Your task to perform on an android device: Search for vegetarian restaurants on Maps Image 0: 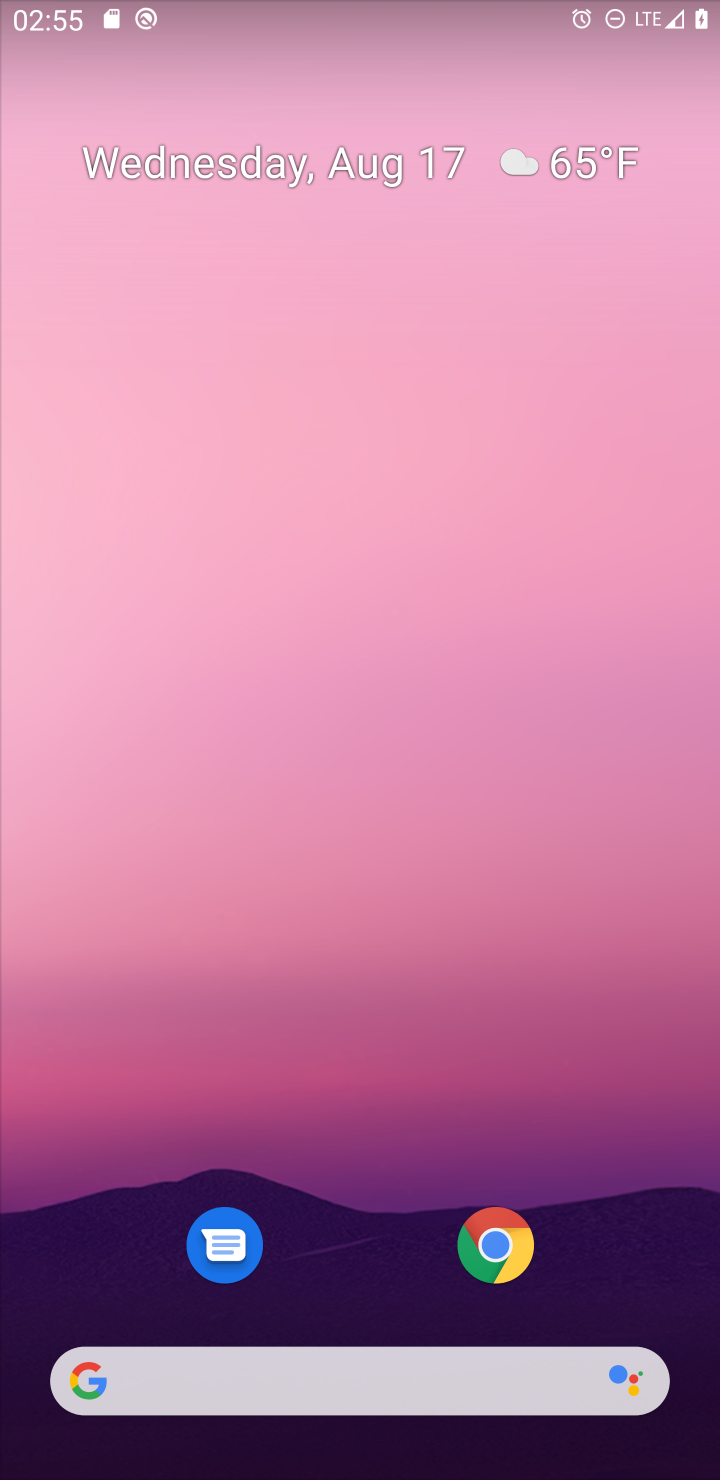
Step 0: drag from (362, 1182) to (258, 259)
Your task to perform on an android device: Search for vegetarian restaurants on Maps Image 1: 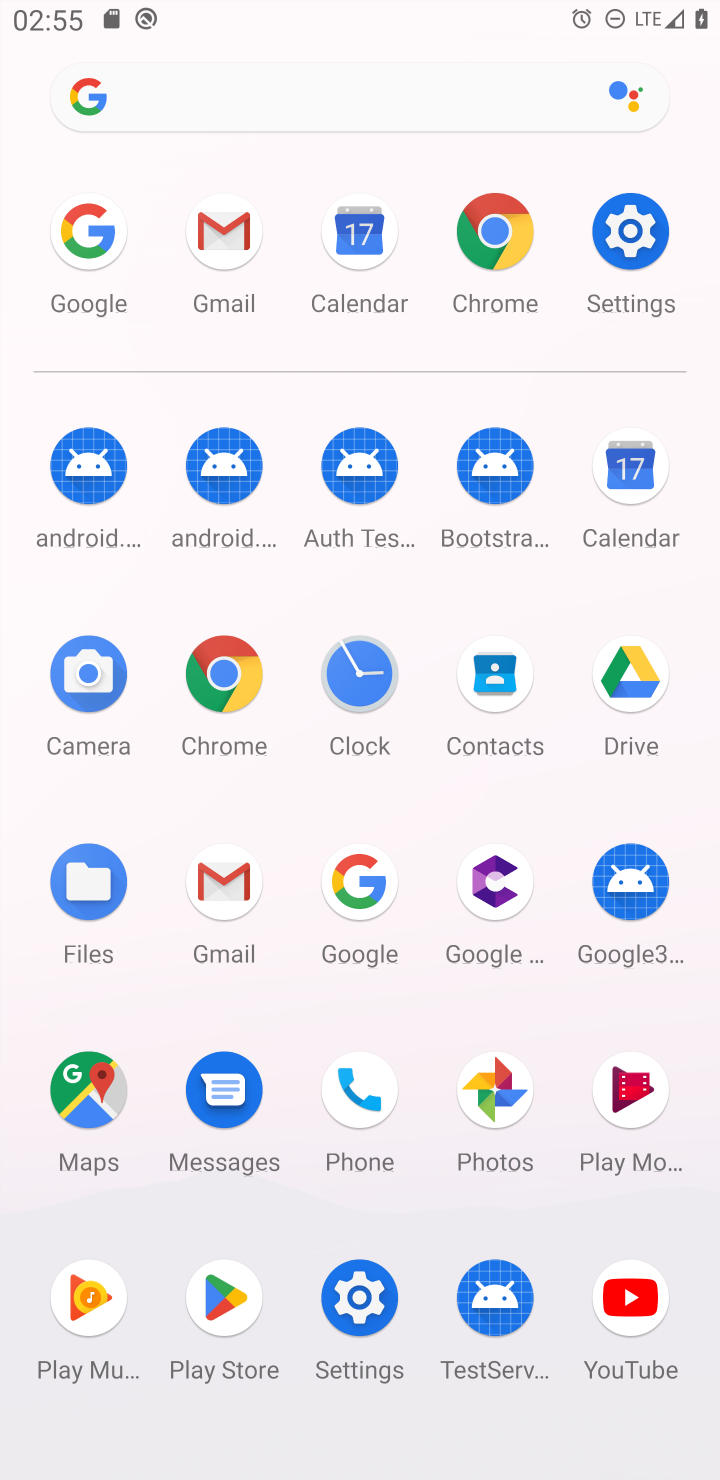
Step 1: click (92, 1082)
Your task to perform on an android device: Search for vegetarian restaurants on Maps Image 2: 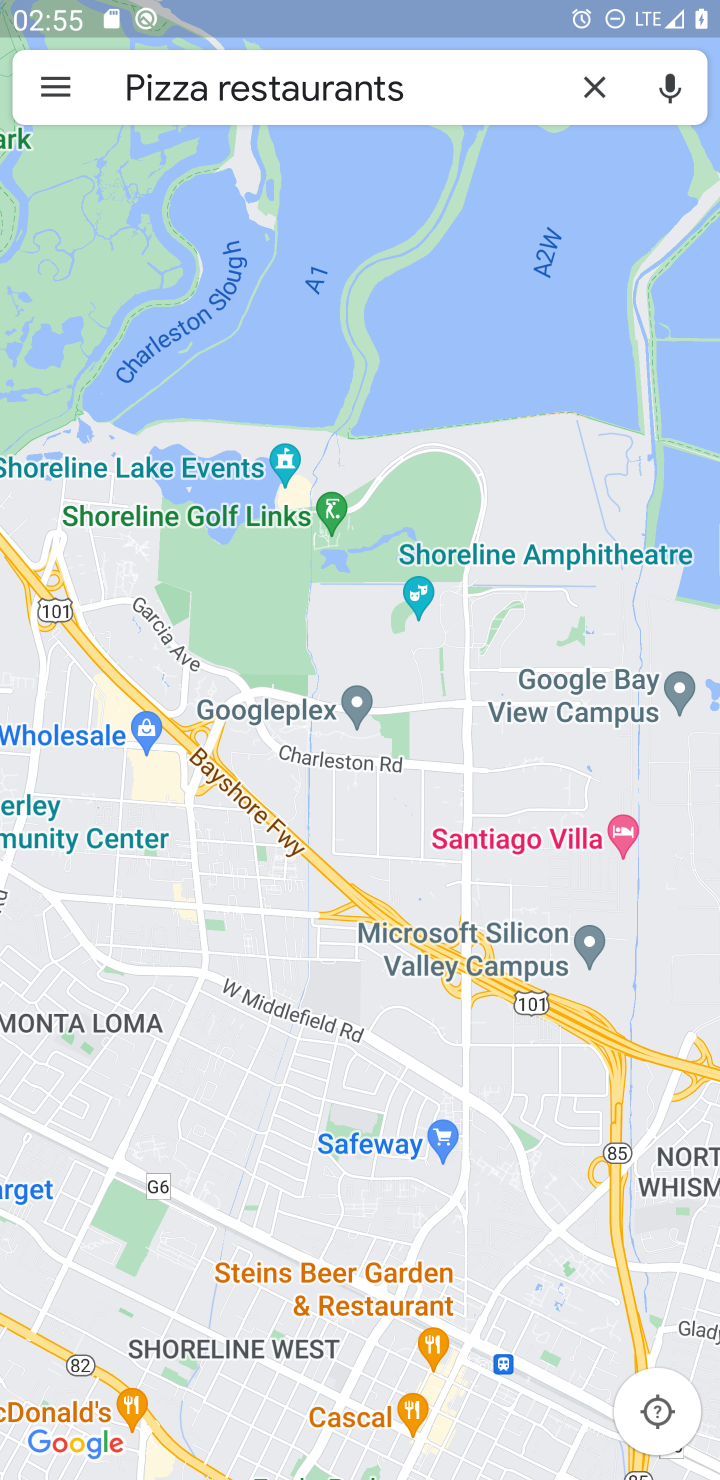
Step 2: click (593, 88)
Your task to perform on an android device: Search for vegetarian restaurants on Maps Image 3: 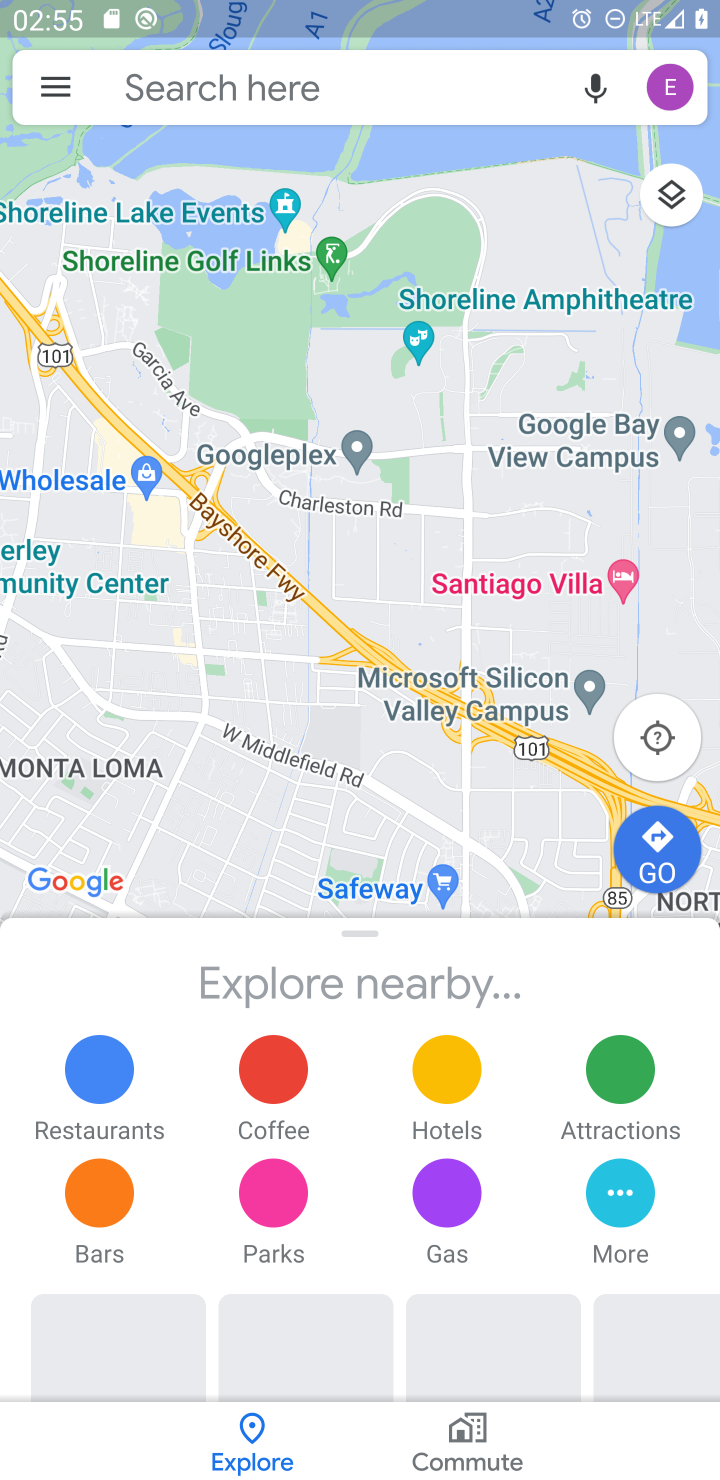
Step 3: click (355, 86)
Your task to perform on an android device: Search for vegetarian restaurants on Maps Image 4: 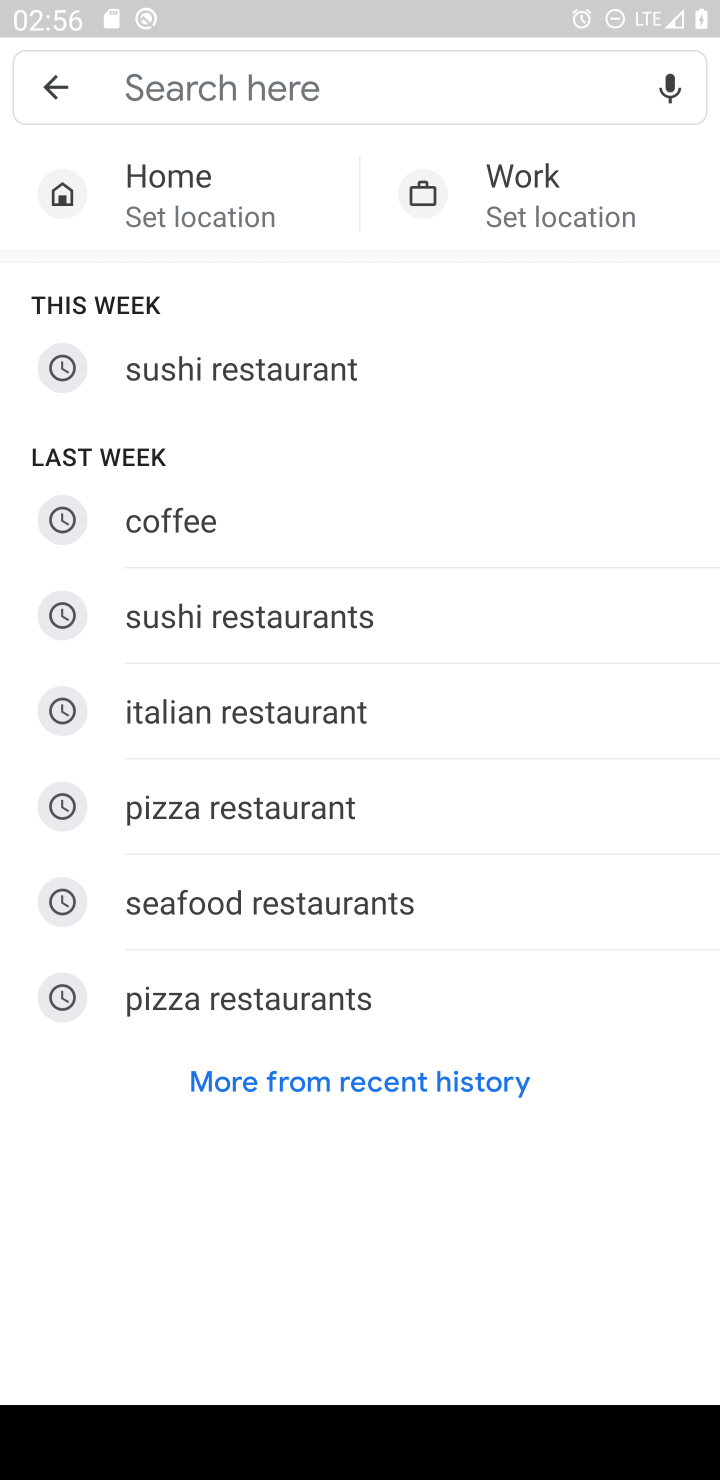
Step 4: type "vegetarian restaurants"
Your task to perform on an android device: Search for vegetarian restaurants on Maps Image 5: 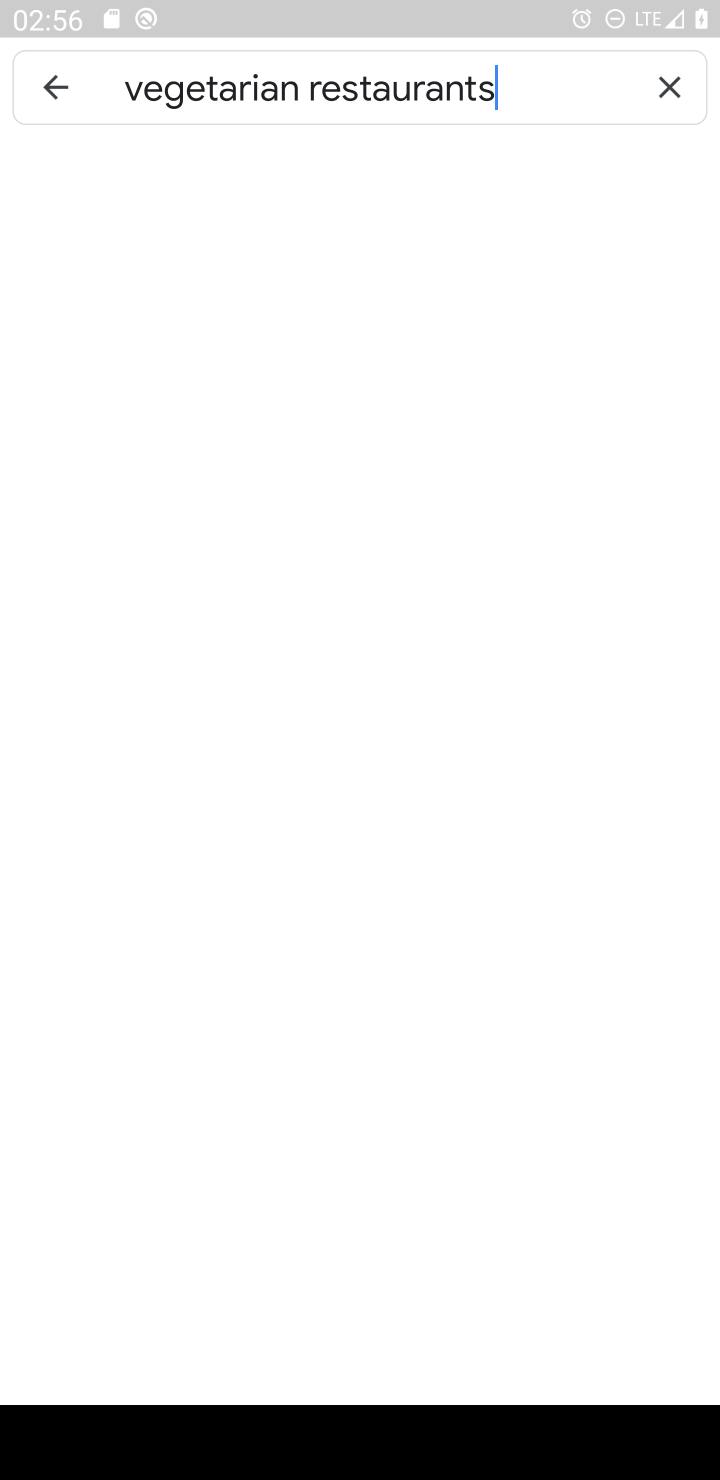
Step 5: type ""
Your task to perform on an android device: Search for vegetarian restaurants on Maps Image 6: 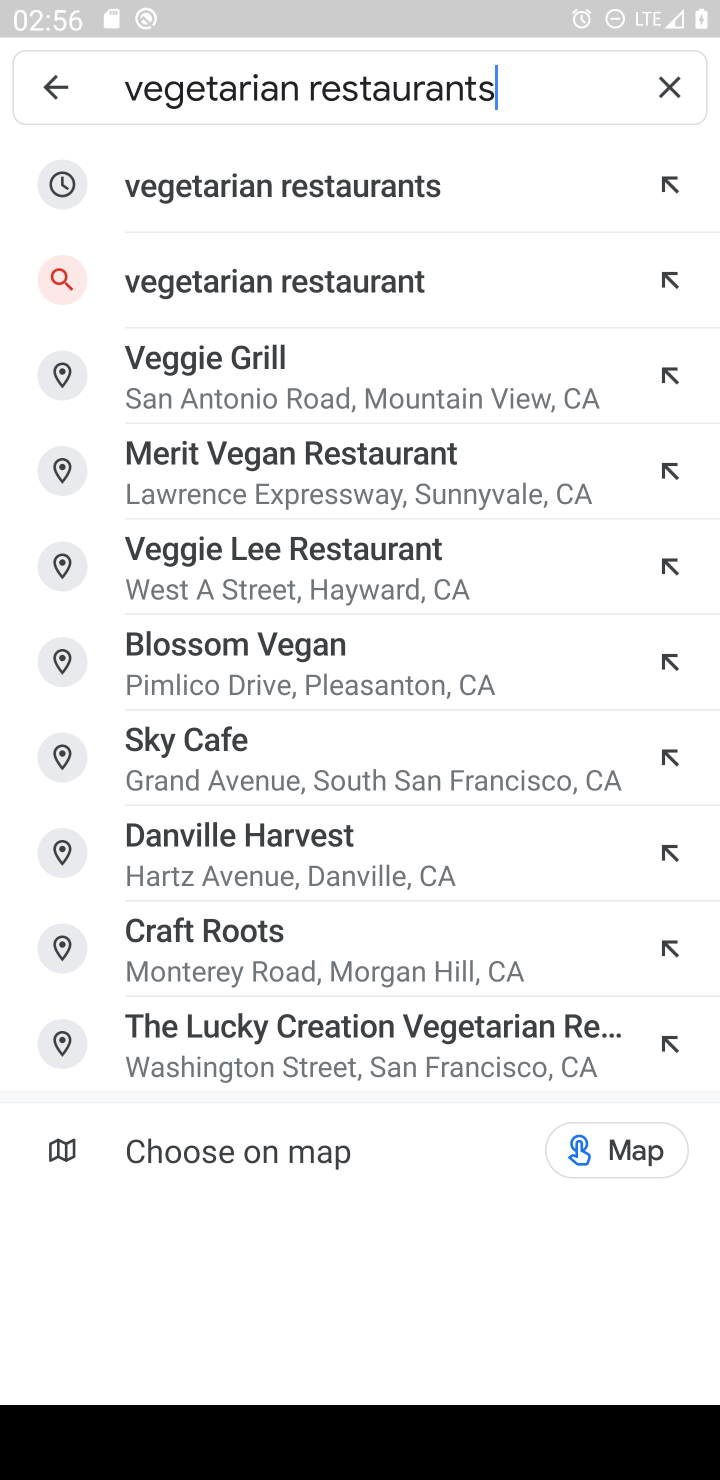
Step 6: click (337, 195)
Your task to perform on an android device: Search for vegetarian restaurants on Maps Image 7: 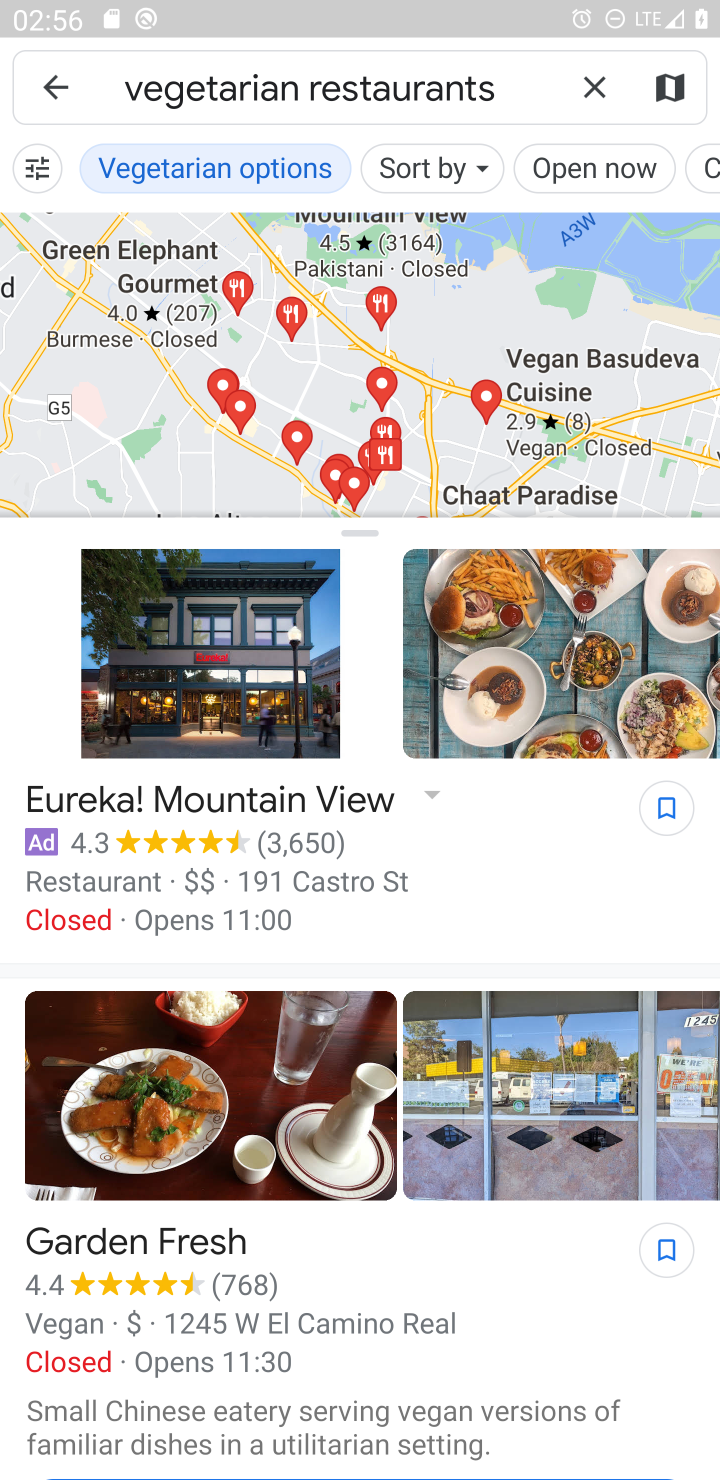
Step 7: task complete